Your task to perform on an android device: turn notification dots on Image 0: 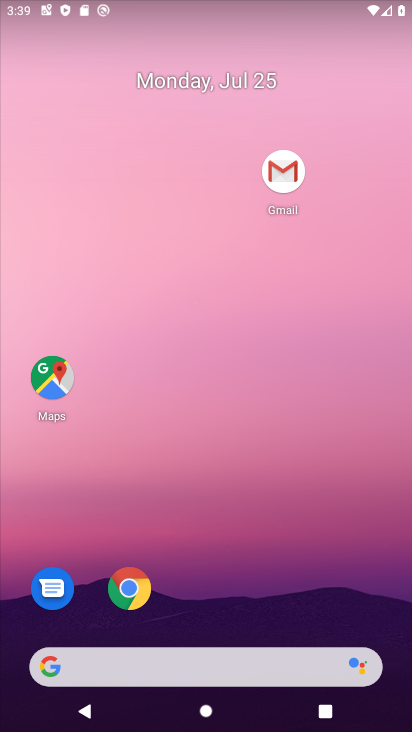
Step 0: drag from (224, 470) to (174, 15)
Your task to perform on an android device: turn notification dots on Image 1: 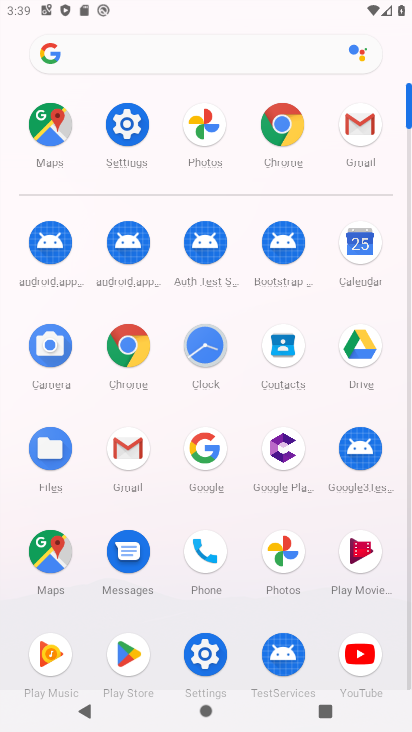
Step 1: click (124, 125)
Your task to perform on an android device: turn notification dots on Image 2: 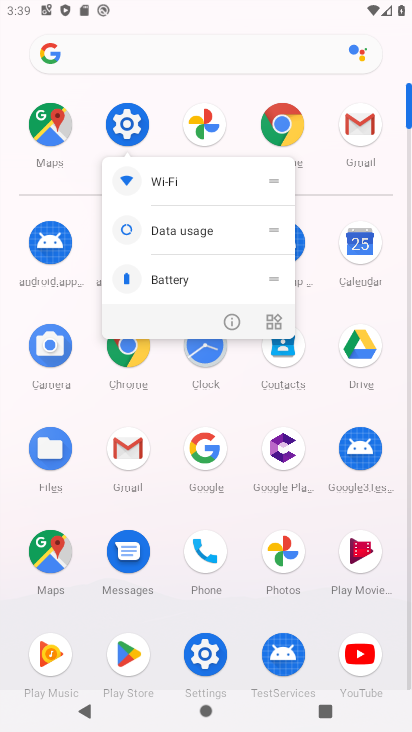
Step 2: click (124, 125)
Your task to perform on an android device: turn notification dots on Image 3: 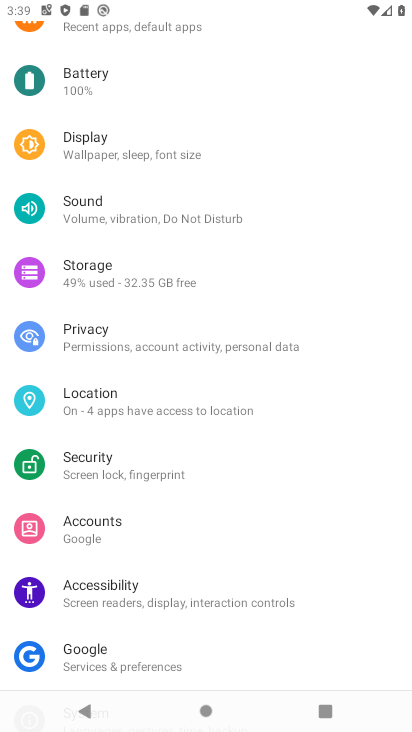
Step 3: drag from (237, 148) to (225, 516)
Your task to perform on an android device: turn notification dots on Image 4: 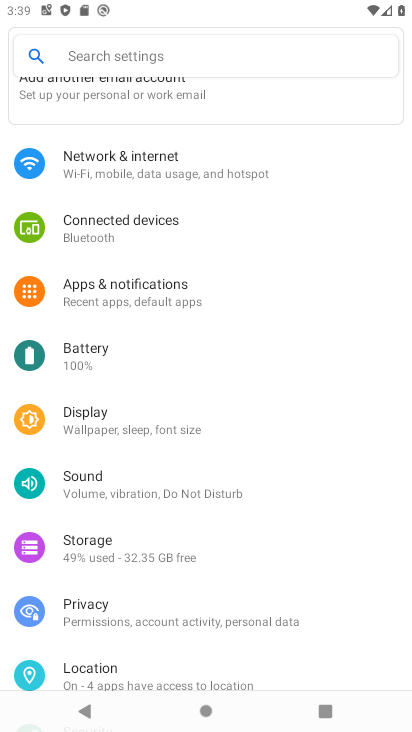
Step 4: click (176, 296)
Your task to perform on an android device: turn notification dots on Image 5: 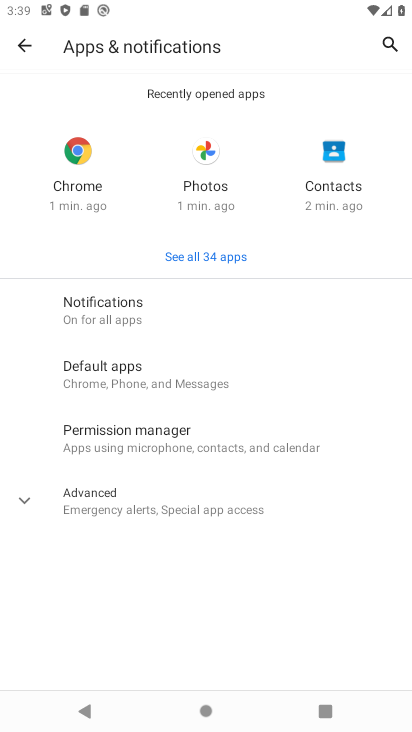
Step 5: click (151, 302)
Your task to perform on an android device: turn notification dots on Image 6: 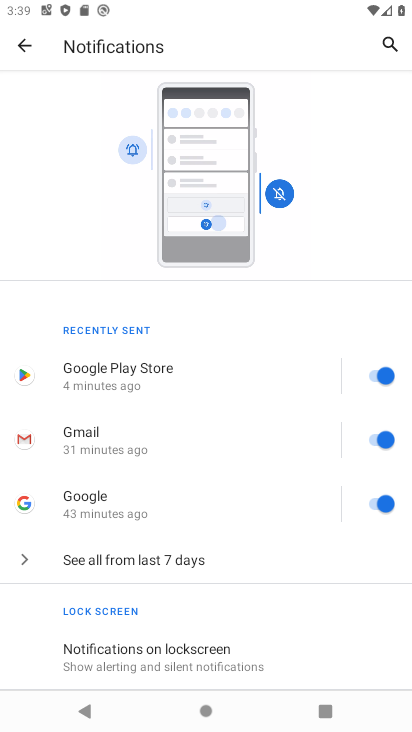
Step 6: drag from (258, 551) to (268, 29)
Your task to perform on an android device: turn notification dots on Image 7: 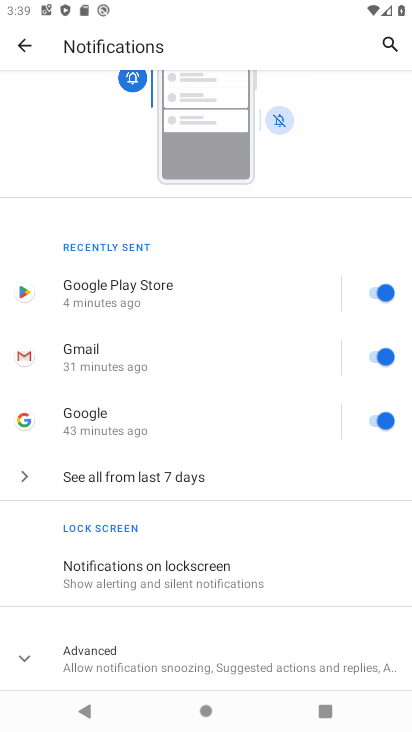
Step 7: click (129, 656)
Your task to perform on an android device: turn notification dots on Image 8: 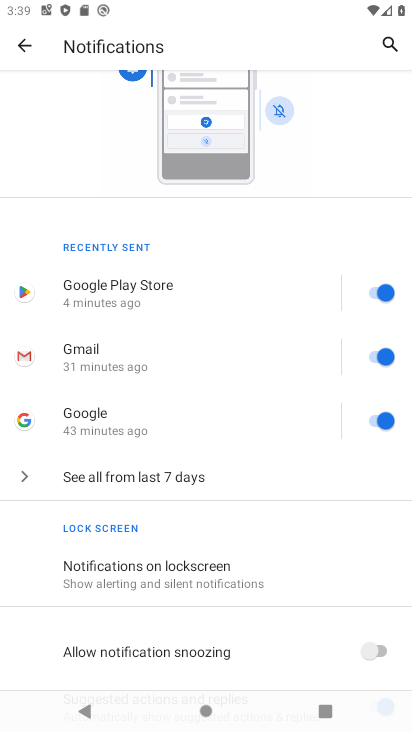
Step 8: drag from (279, 591) to (276, 34)
Your task to perform on an android device: turn notification dots on Image 9: 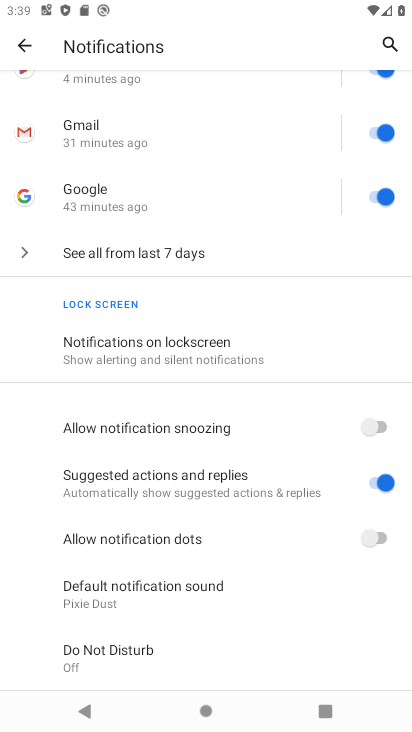
Step 9: click (360, 530)
Your task to perform on an android device: turn notification dots on Image 10: 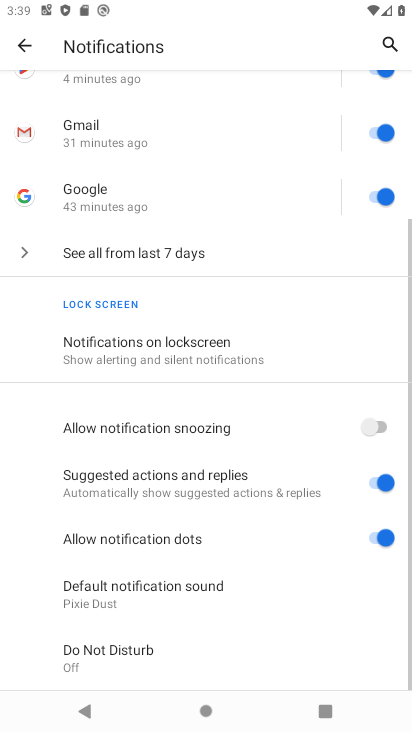
Step 10: task complete